Your task to perform on an android device: turn off data saver in the chrome app Image 0: 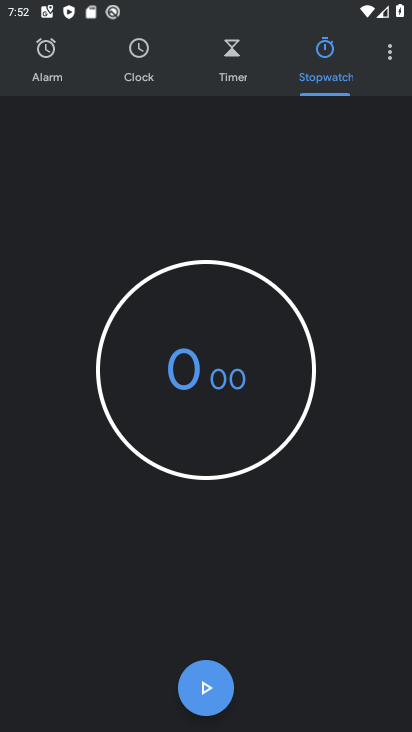
Step 0: press home button
Your task to perform on an android device: turn off data saver in the chrome app Image 1: 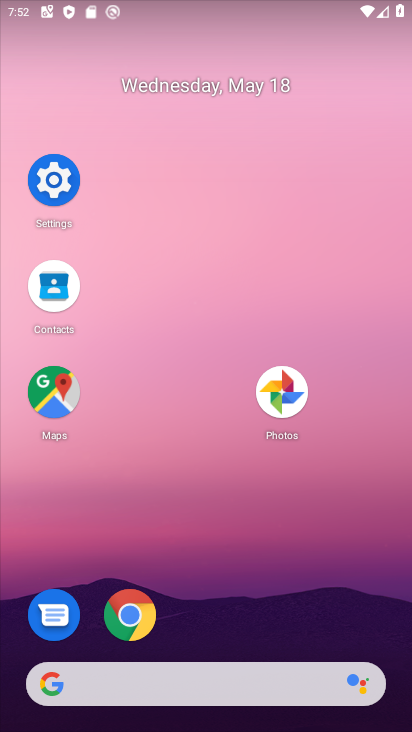
Step 1: click (146, 629)
Your task to perform on an android device: turn off data saver in the chrome app Image 2: 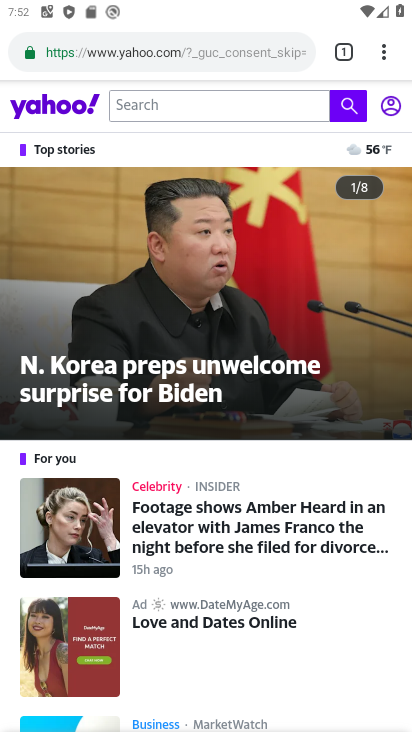
Step 2: click (386, 51)
Your task to perform on an android device: turn off data saver in the chrome app Image 3: 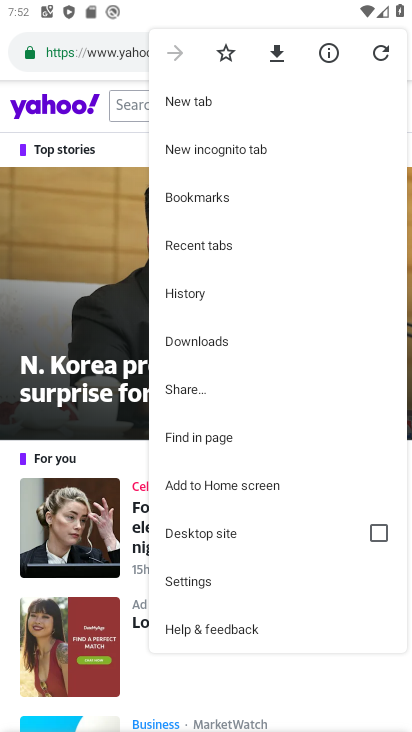
Step 3: drag from (261, 508) to (281, 217)
Your task to perform on an android device: turn off data saver in the chrome app Image 4: 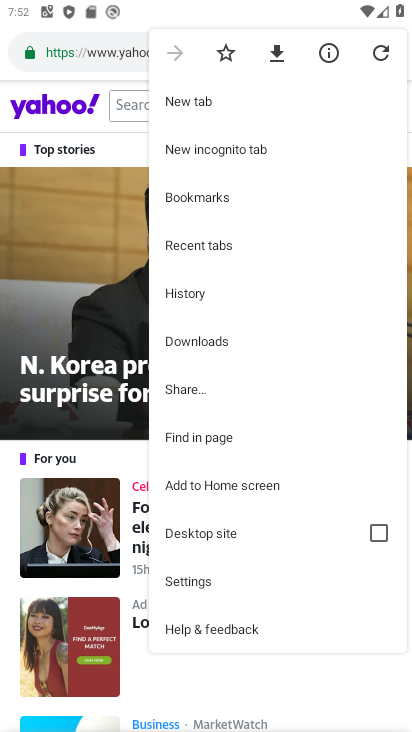
Step 4: click (207, 574)
Your task to perform on an android device: turn off data saver in the chrome app Image 5: 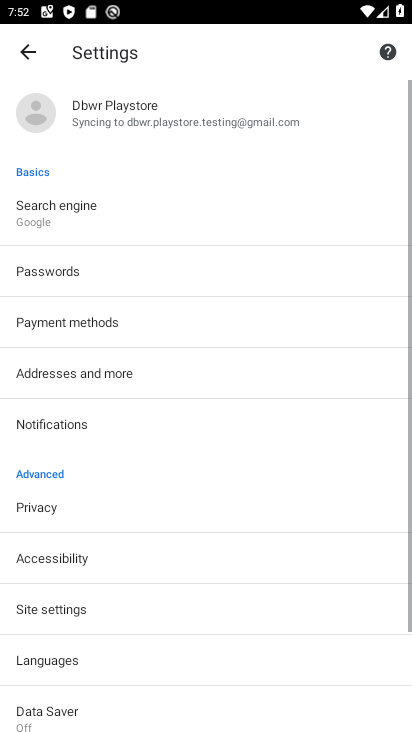
Step 5: drag from (207, 574) to (239, 127)
Your task to perform on an android device: turn off data saver in the chrome app Image 6: 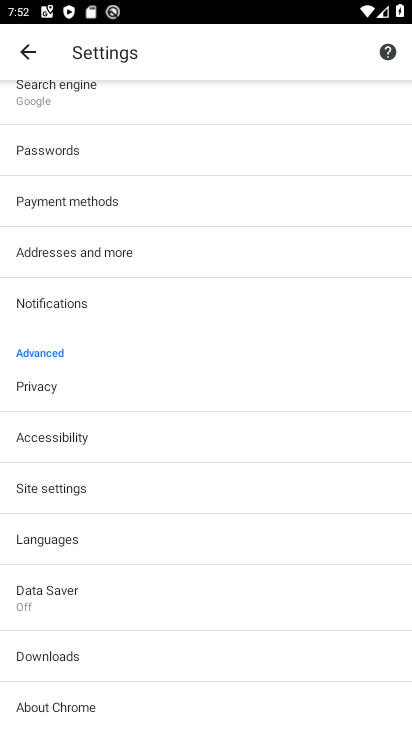
Step 6: click (87, 579)
Your task to perform on an android device: turn off data saver in the chrome app Image 7: 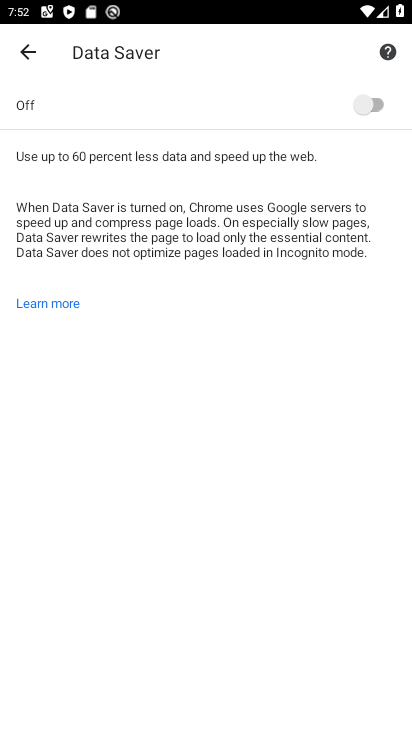
Step 7: task complete